Your task to perform on an android device: change notification settings in the gmail app Image 0: 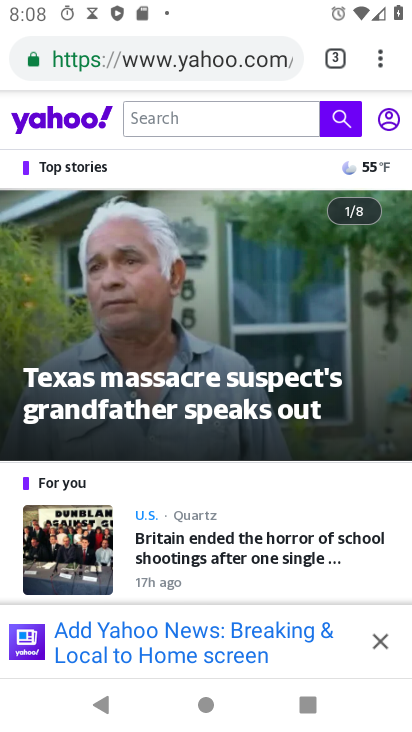
Step 0: press home button
Your task to perform on an android device: change notification settings in the gmail app Image 1: 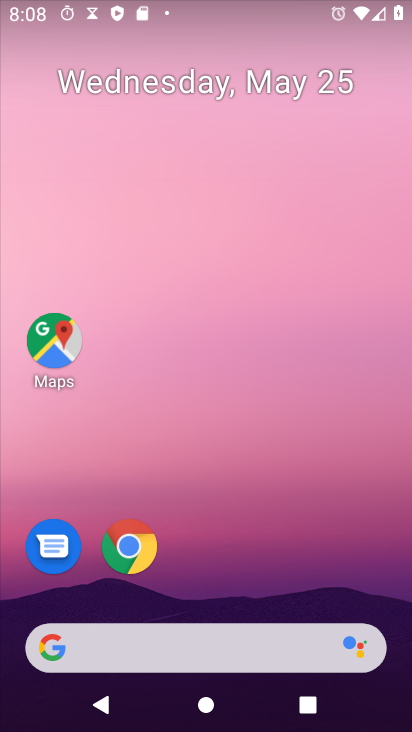
Step 1: drag from (236, 579) to (179, 121)
Your task to perform on an android device: change notification settings in the gmail app Image 2: 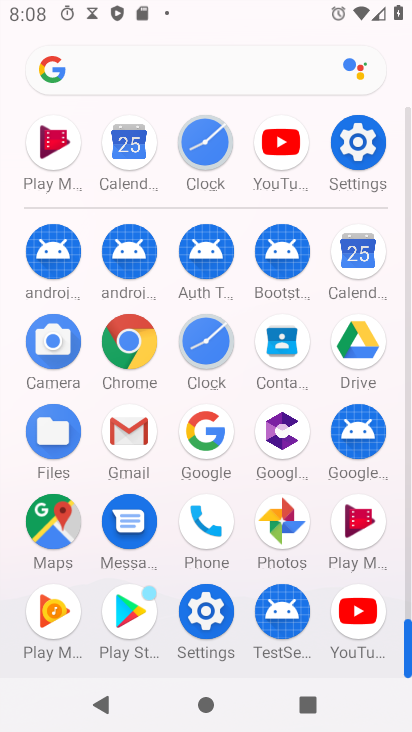
Step 2: click (137, 432)
Your task to perform on an android device: change notification settings in the gmail app Image 3: 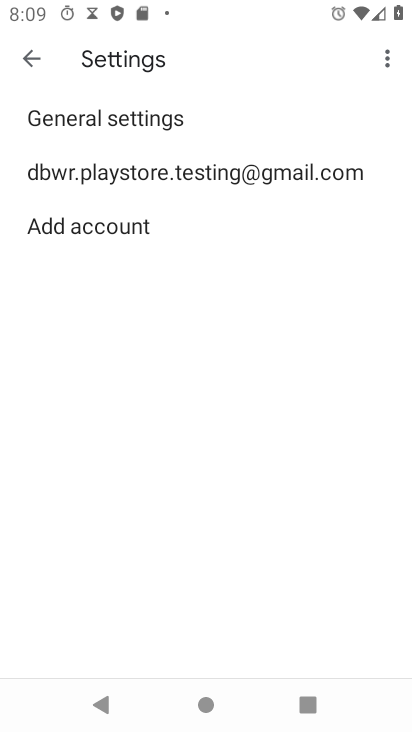
Step 3: click (108, 187)
Your task to perform on an android device: change notification settings in the gmail app Image 4: 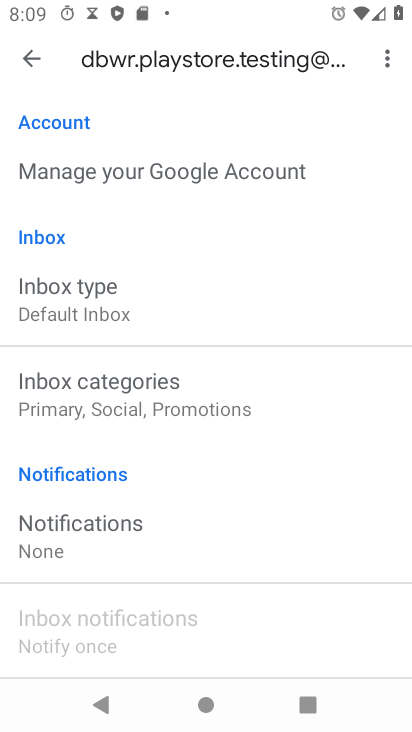
Step 4: drag from (155, 574) to (217, 245)
Your task to perform on an android device: change notification settings in the gmail app Image 5: 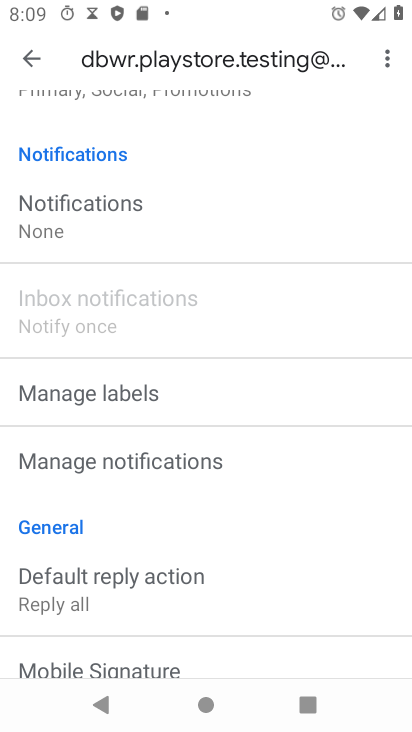
Step 5: click (98, 461)
Your task to perform on an android device: change notification settings in the gmail app Image 6: 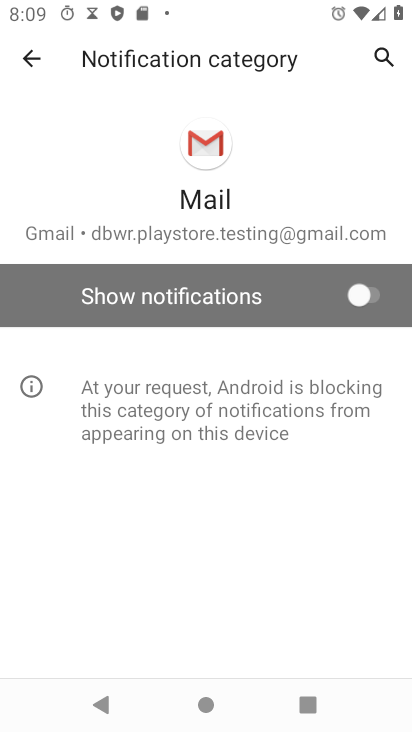
Step 6: click (381, 296)
Your task to perform on an android device: change notification settings in the gmail app Image 7: 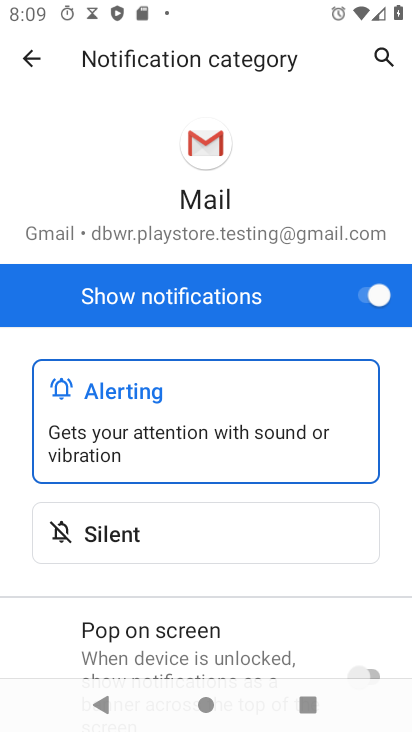
Step 7: task complete